Your task to perform on an android device: see creations saved in the google photos Image 0: 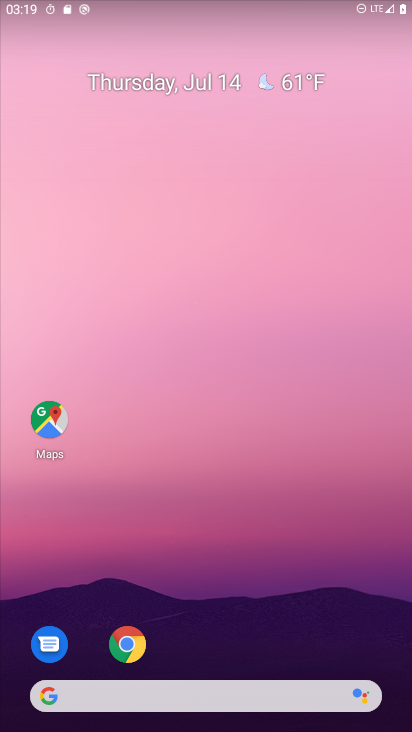
Step 0: drag from (301, 635) to (297, 141)
Your task to perform on an android device: see creations saved in the google photos Image 1: 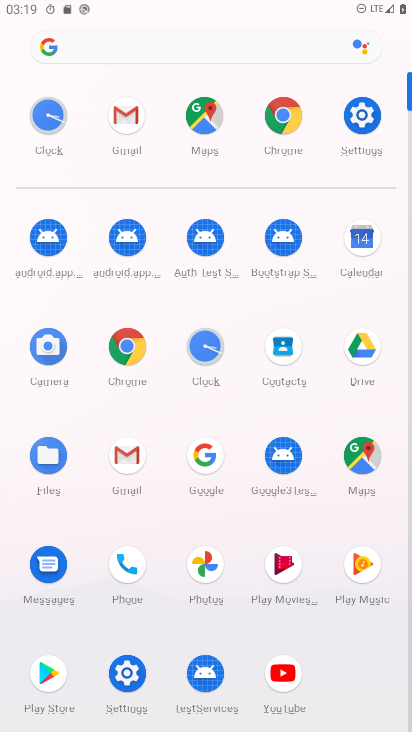
Step 1: click (210, 563)
Your task to perform on an android device: see creations saved in the google photos Image 2: 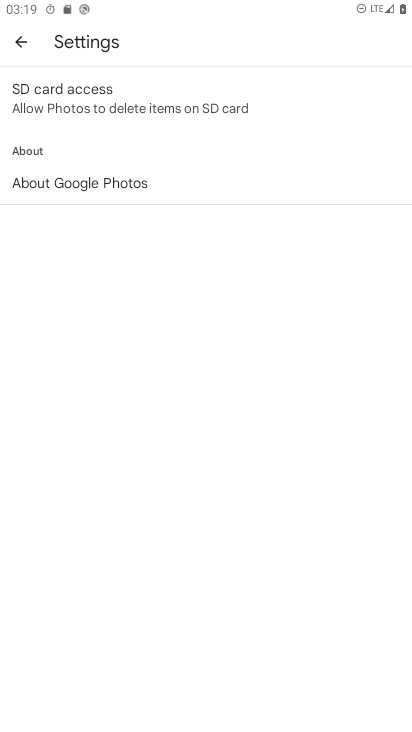
Step 2: click (23, 41)
Your task to perform on an android device: see creations saved in the google photos Image 3: 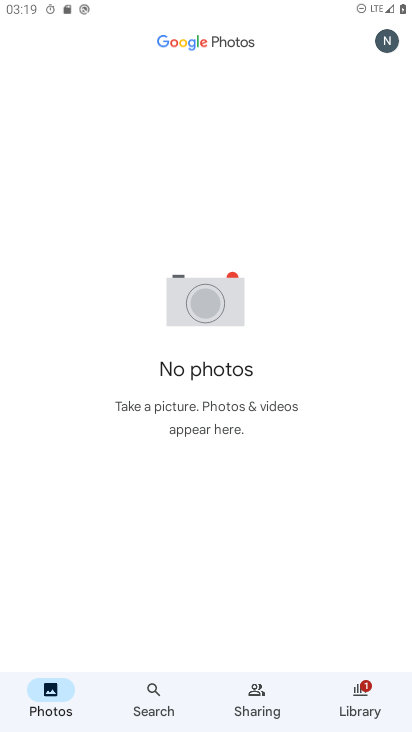
Step 3: task complete